Your task to perform on an android device: Go to battery settings Image 0: 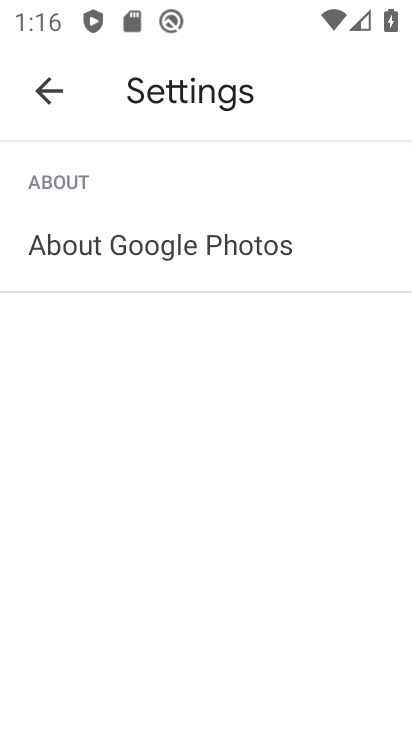
Step 0: press home button
Your task to perform on an android device: Go to battery settings Image 1: 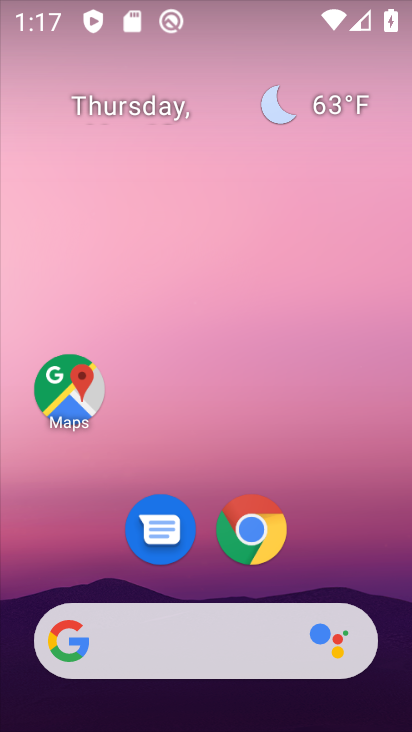
Step 1: drag from (336, 549) to (237, 0)
Your task to perform on an android device: Go to battery settings Image 2: 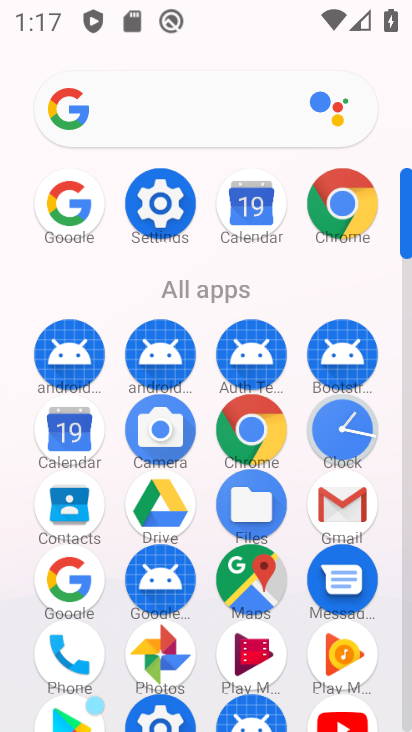
Step 2: click (160, 203)
Your task to perform on an android device: Go to battery settings Image 3: 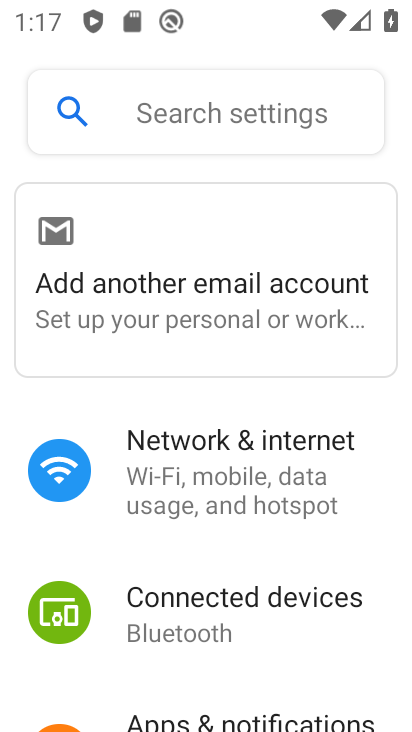
Step 3: drag from (216, 432) to (249, 345)
Your task to perform on an android device: Go to battery settings Image 4: 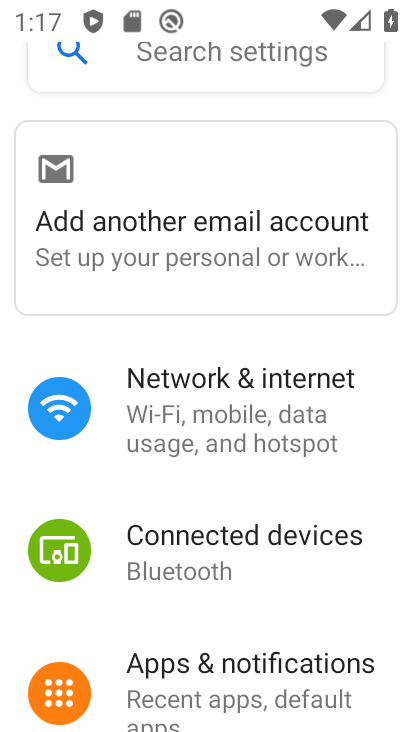
Step 4: drag from (149, 502) to (202, 344)
Your task to perform on an android device: Go to battery settings Image 5: 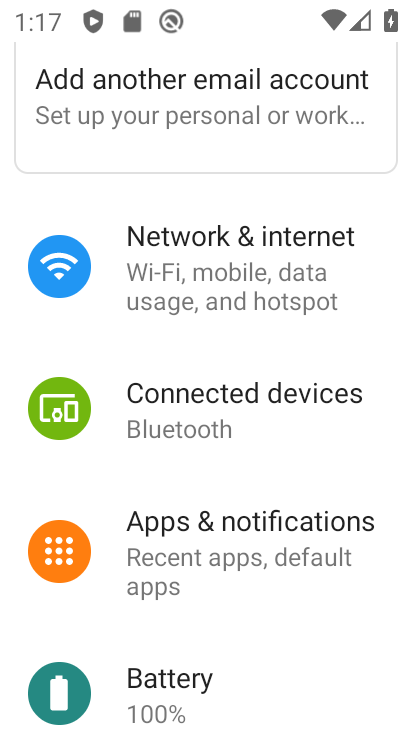
Step 5: drag from (168, 482) to (245, 334)
Your task to perform on an android device: Go to battery settings Image 6: 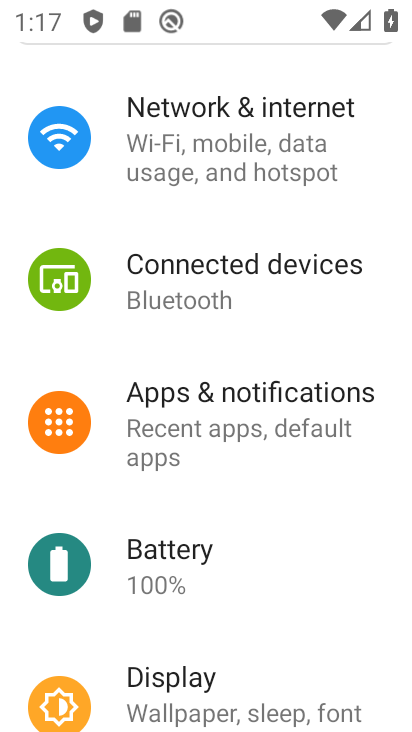
Step 6: drag from (230, 497) to (289, 390)
Your task to perform on an android device: Go to battery settings Image 7: 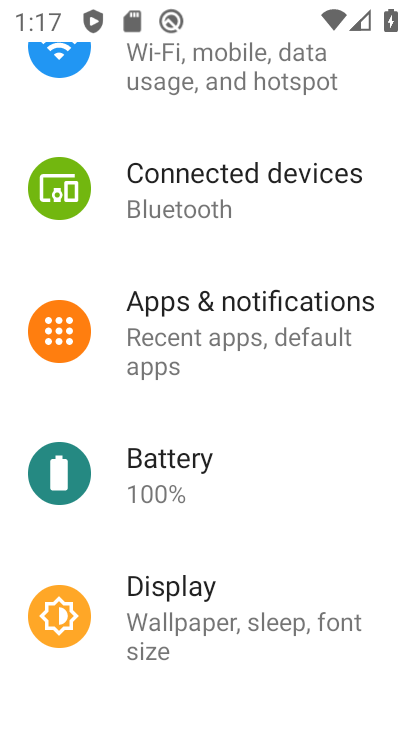
Step 7: click (200, 466)
Your task to perform on an android device: Go to battery settings Image 8: 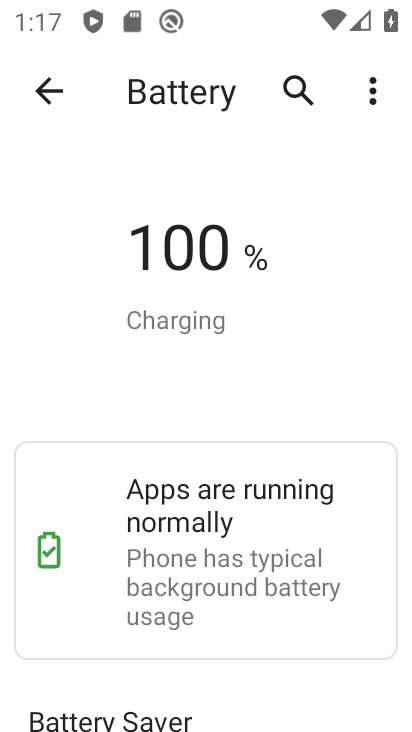
Step 8: task complete